Your task to perform on an android device: manage bookmarks in the chrome app Image 0: 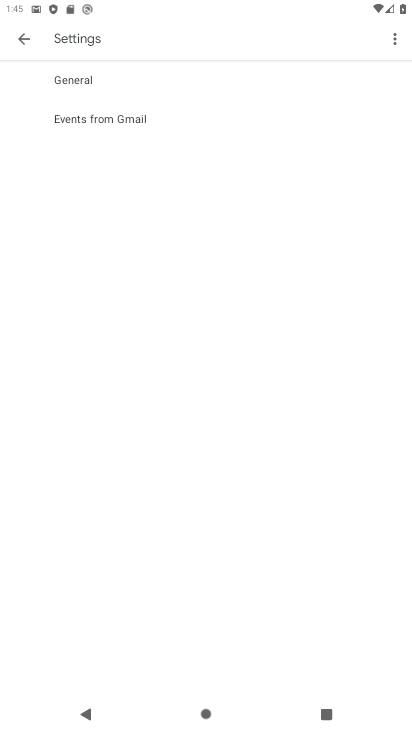
Step 0: press home button
Your task to perform on an android device: manage bookmarks in the chrome app Image 1: 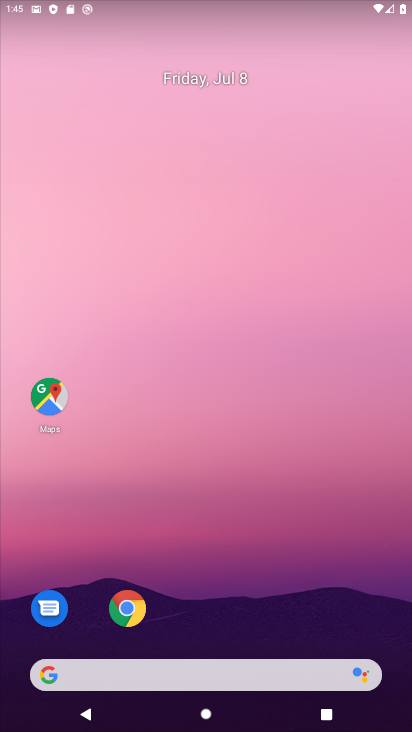
Step 1: click (142, 610)
Your task to perform on an android device: manage bookmarks in the chrome app Image 2: 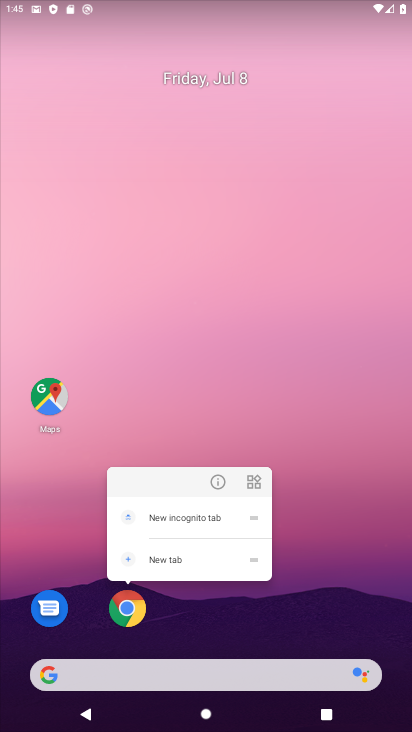
Step 2: click (126, 612)
Your task to perform on an android device: manage bookmarks in the chrome app Image 3: 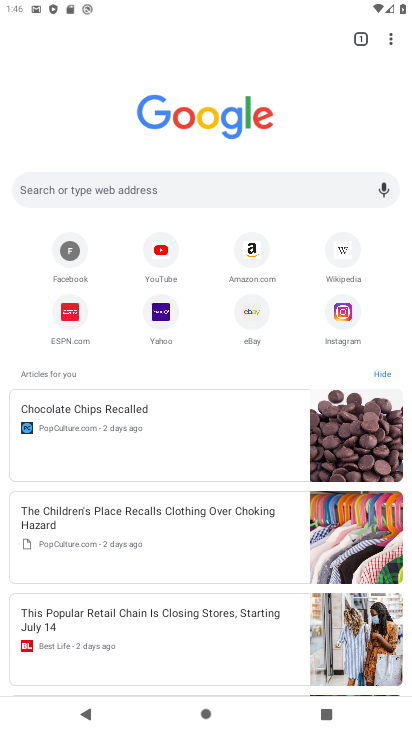
Step 3: click (393, 37)
Your task to perform on an android device: manage bookmarks in the chrome app Image 4: 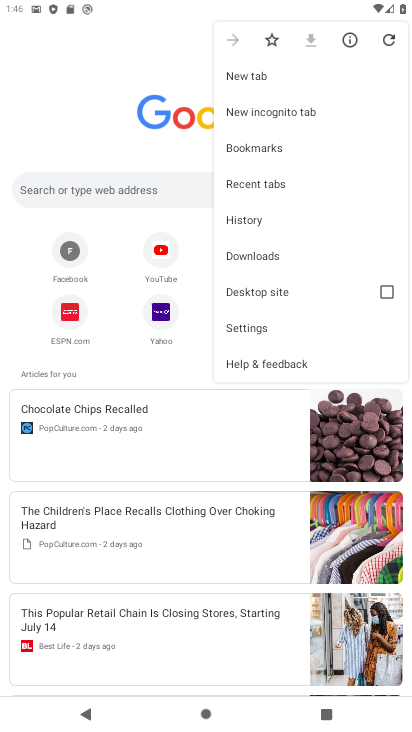
Step 4: click (271, 147)
Your task to perform on an android device: manage bookmarks in the chrome app Image 5: 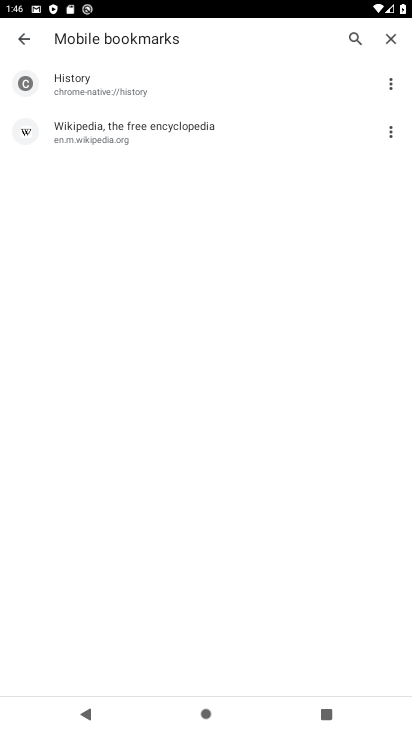
Step 5: click (392, 135)
Your task to perform on an android device: manage bookmarks in the chrome app Image 6: 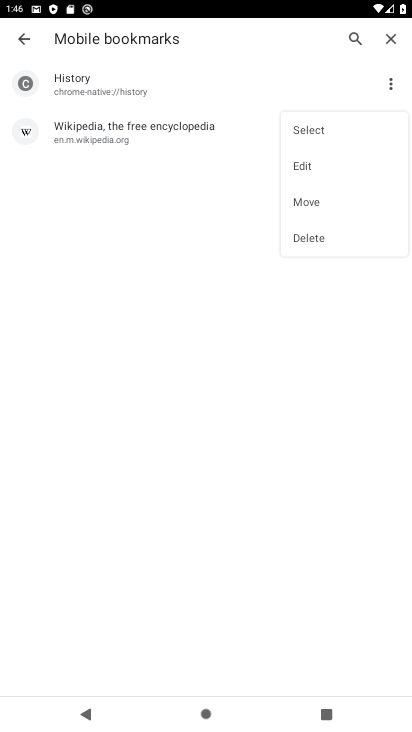
Step 6: click (326, 230)
Your task to perform on an android device: manage bookmarks in the chrome app Image 7: 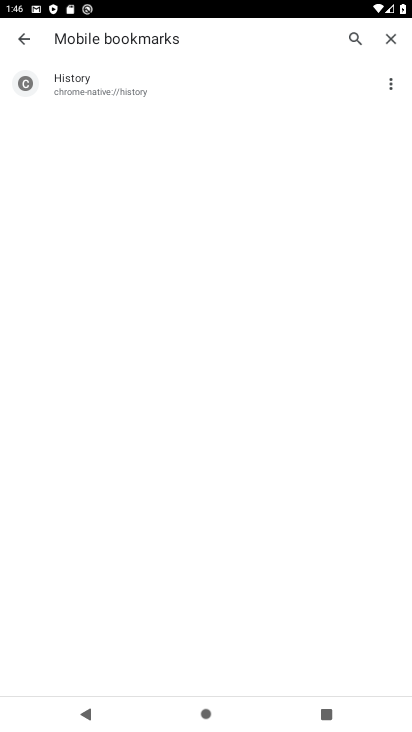
Step 7: task complete